Your task to perform on an android device: check android version Image 0: 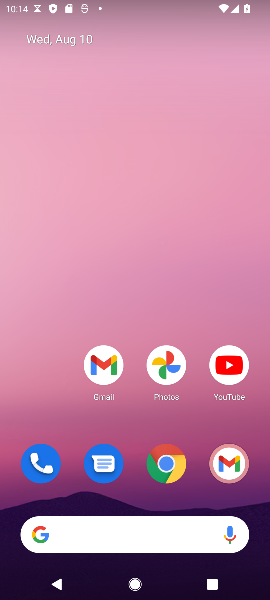
Step 0: drag from (37, 565) to (157, 151)
Your task to perform on an android device: check android version Image 1: 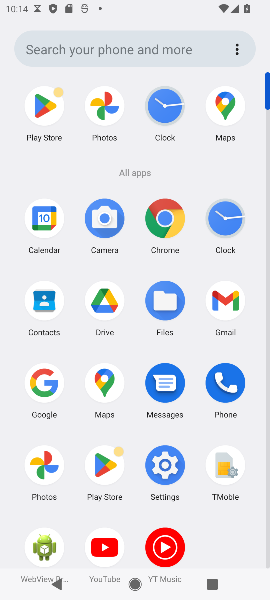
Step 1: click (164, 459)
Your task to perform on an android device: check android version Image 2: 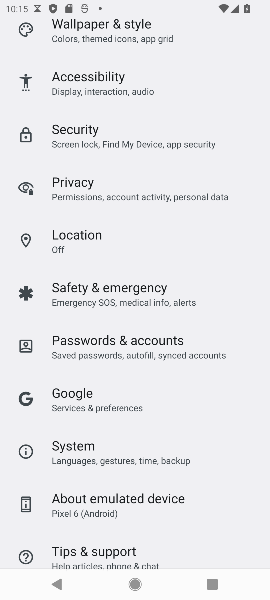
Step 2: click (128, 496)
Your task to perform on an android device: check android version Image 3: 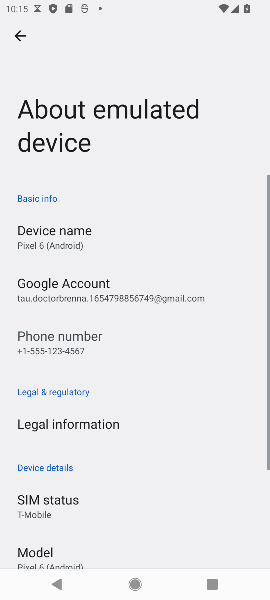
Step 3: drag from (140, 515) to (155, 302)
Your task to perform on an android device: check android version Image 4: 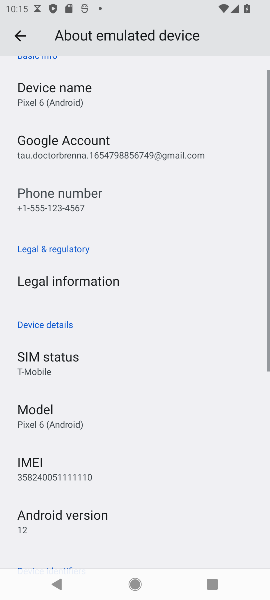
Step 4: click (74, 529)
Your task to perform on an android device: check android version Image 5: 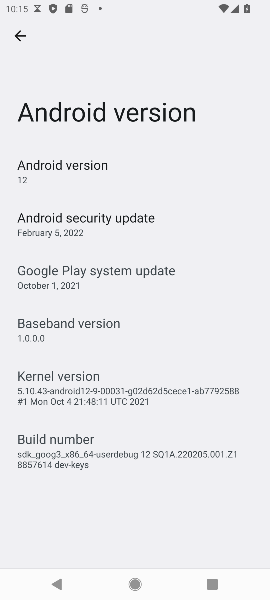
Step 5: task complete